Your task to perform on an android device: Empty the shopping cart on amazon.com. Search for "logitech g502" on amazon.com, select the first entry, and add it to the cart. Image 0: 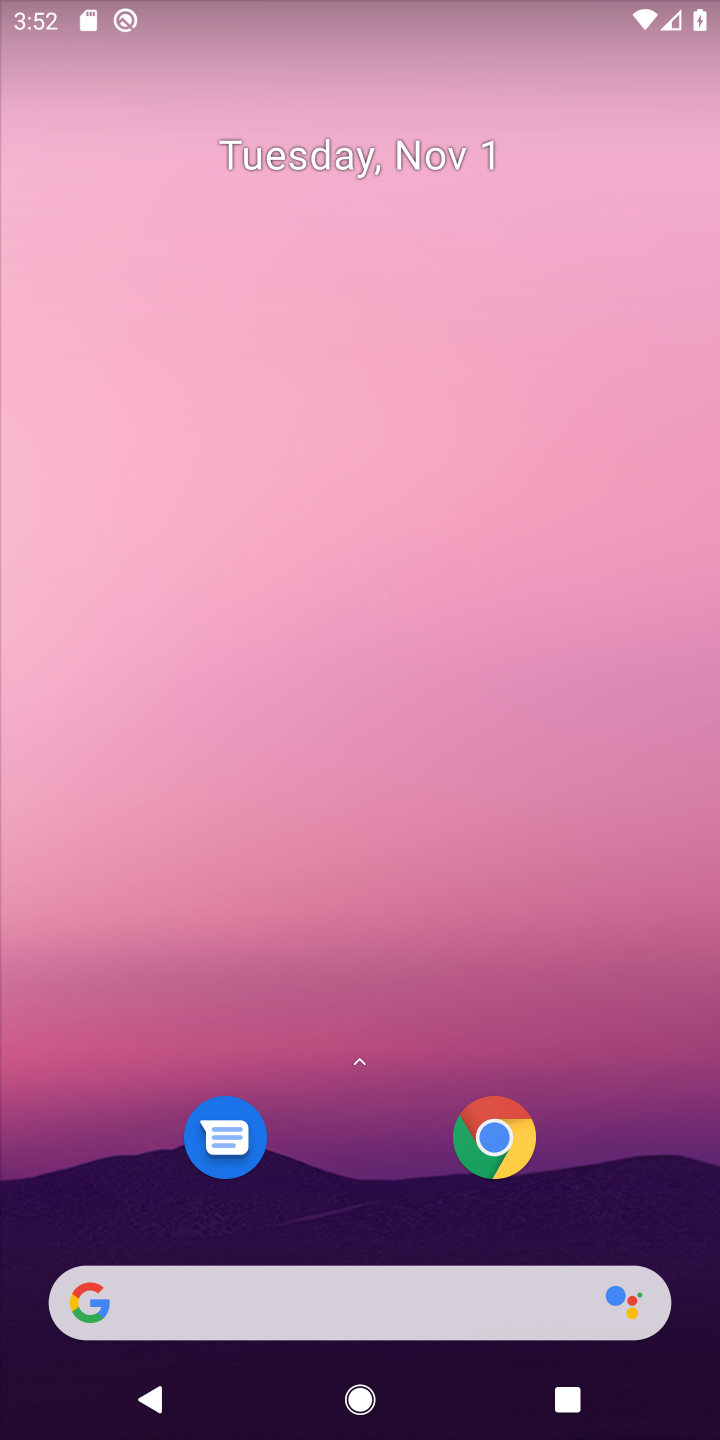
Step 0: click (335, 1285)
Your task to perform on an android device: Empty the shopping cart on amazon.com. Search for "logitech g502" on amazon.com, select the first entry, and add it to the cart. Image 1: 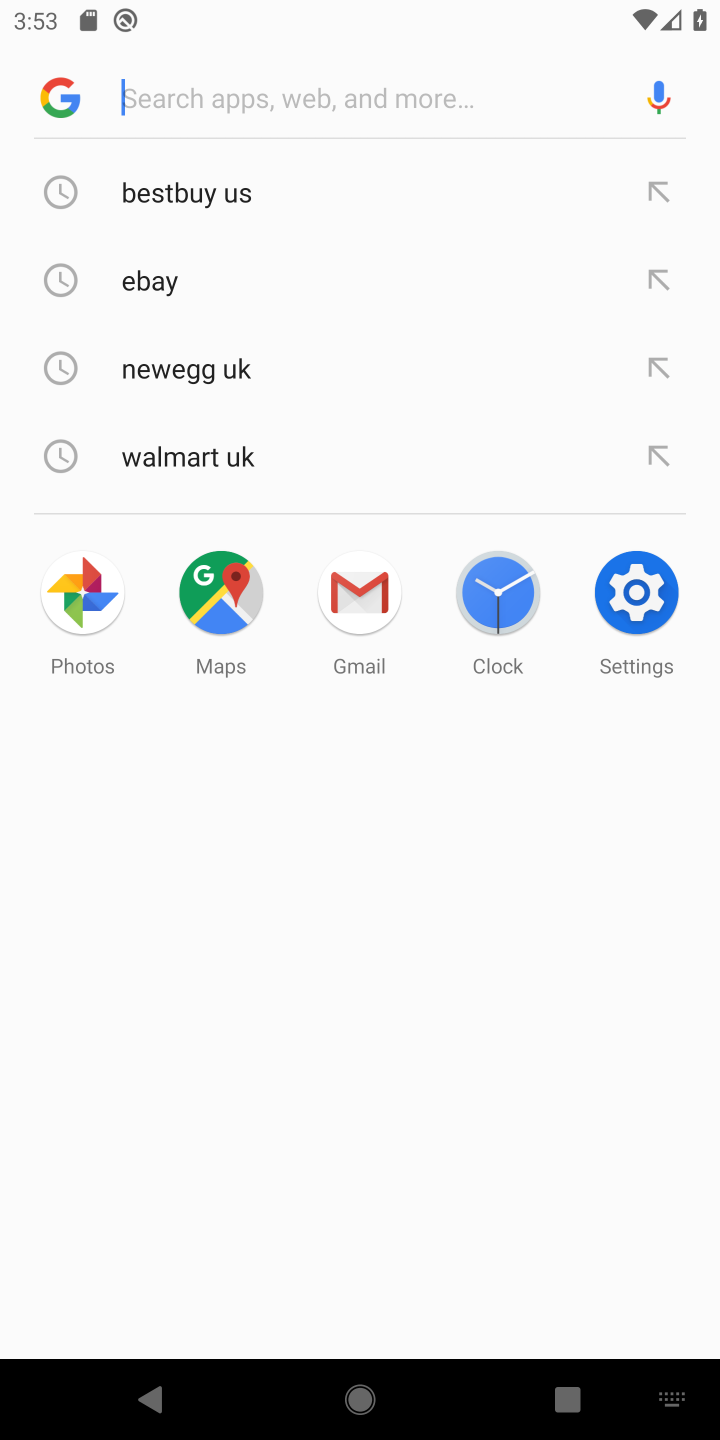
Step 1: type "ama"
Your task to perform on an android device: Empty the shopping cart on amazon.com. Search for "logitech g502" on amazon.com, select the first entry, and add it to the cart. Image 2: 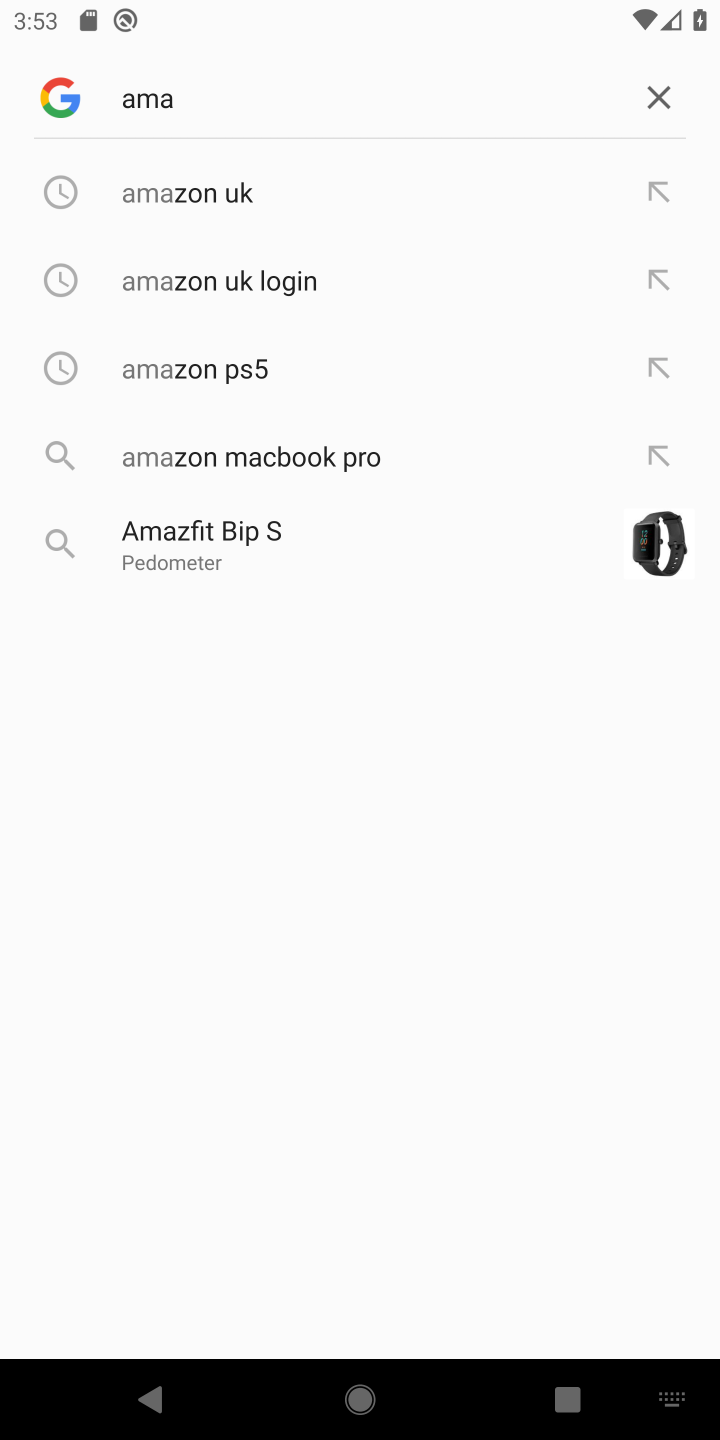
Step 2: click (108, 175)
Your task to perform on an android device: Empty the shopping cart on amazon.com. Search for "logitech g502" on amazon.com, select the first entry, and add it to the cart. Image 3: 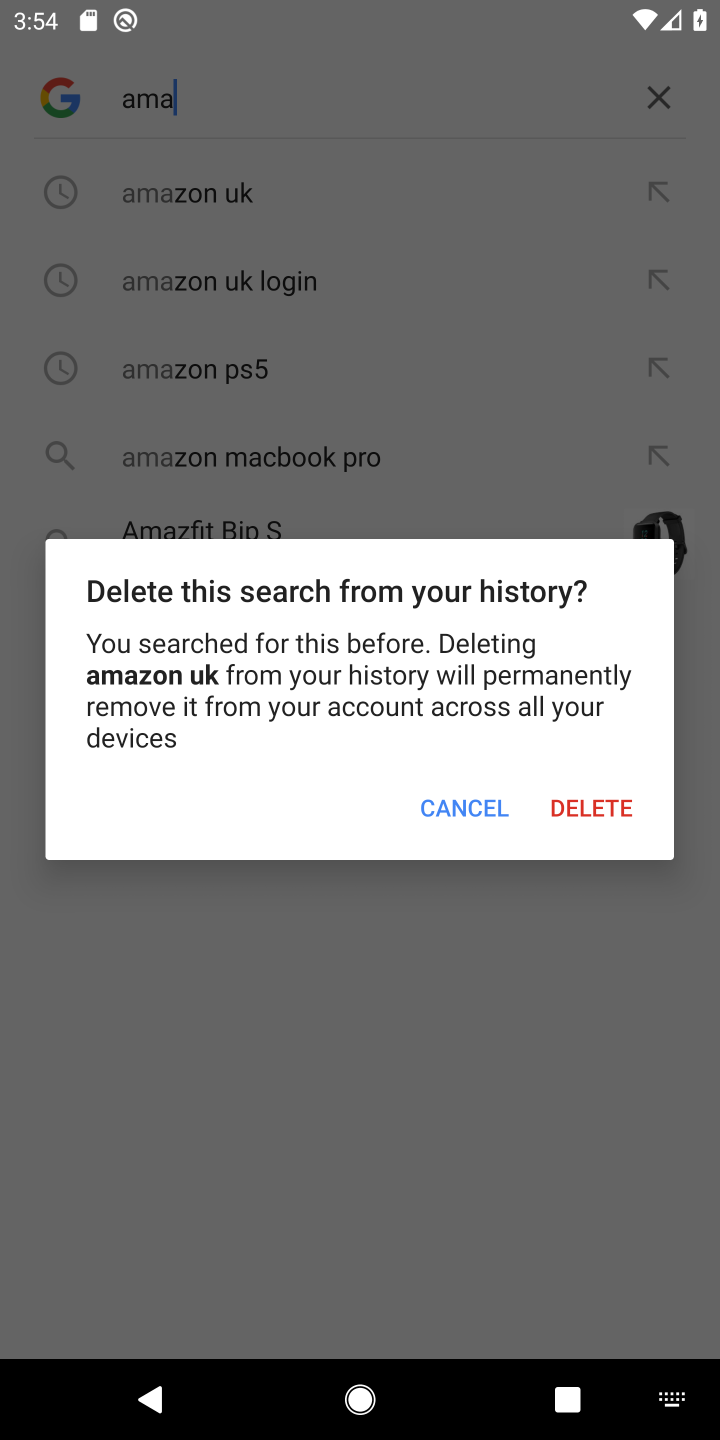
Step 3: click (460, 820)
Your task to perform on an android device: Empty the shopping cart on amazon.com. Search for "logitech g502" on amazon.com, select the first entry, and add it to the cart. Image 4: 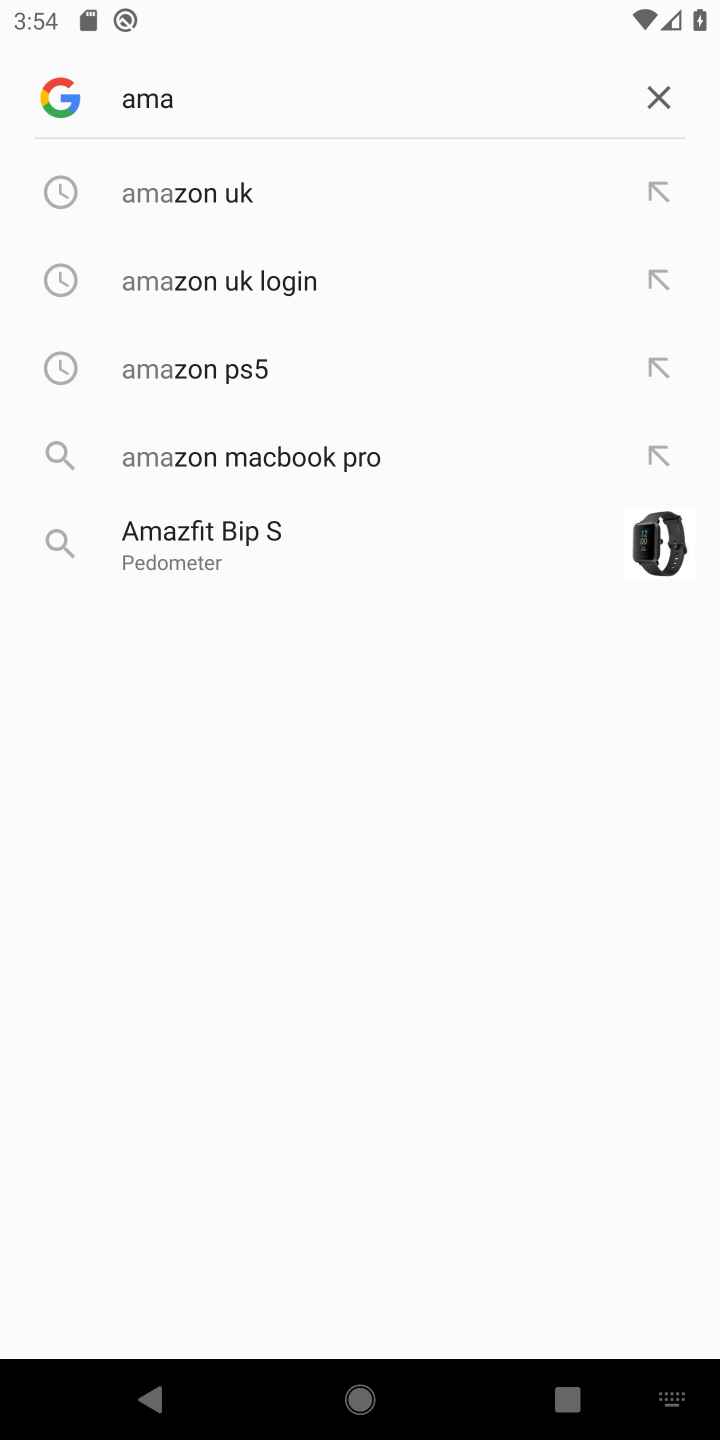
Step 4: click (317, 182)
Your task to perform on an android device: Empty the shopping cart on amazon.com. Search for "logitech g502" on amazon.com, select the first entry, and add it to the cart. Image 5: 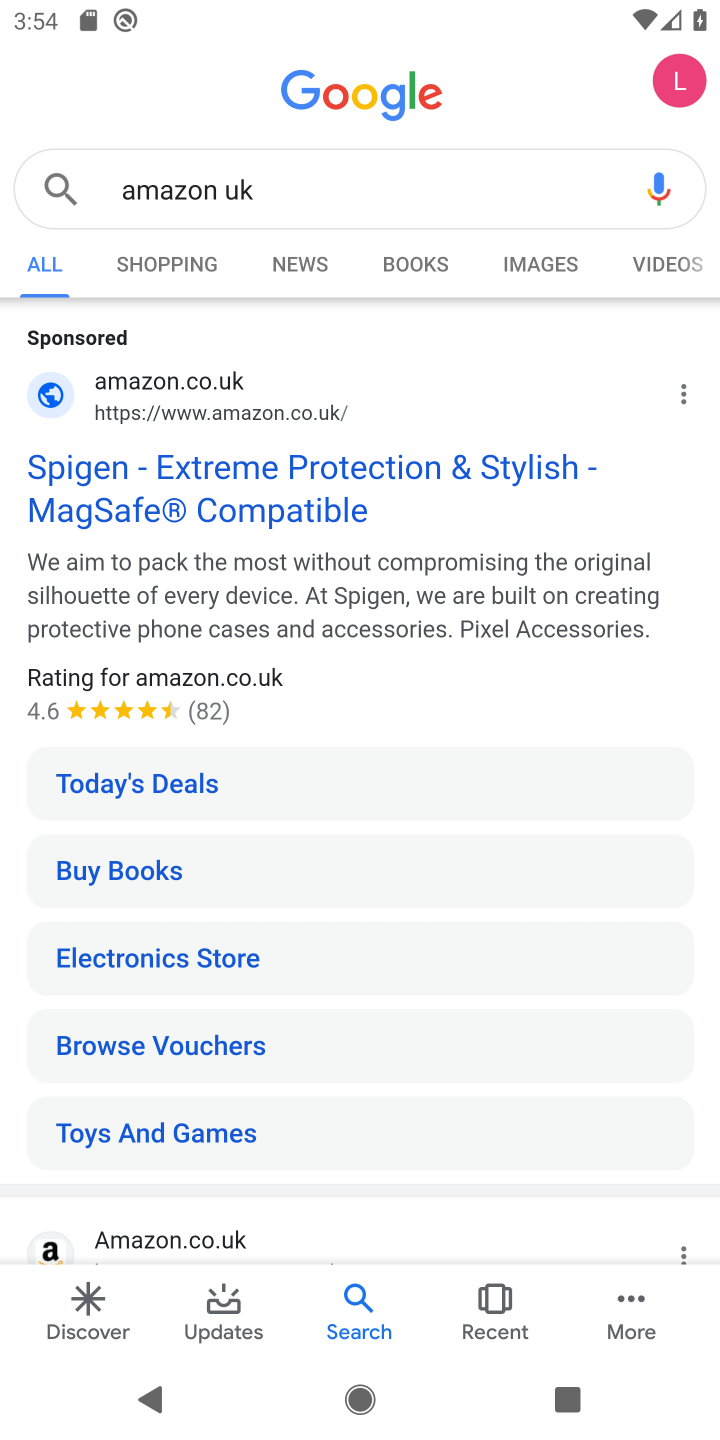
Step 5: click (339, 580)
Your task to perform on an android device: Empty the shopping cart on amazon.com. Search for "logitech g502" on amazon.com, select the first entry, and add it to the cart. Image 6: 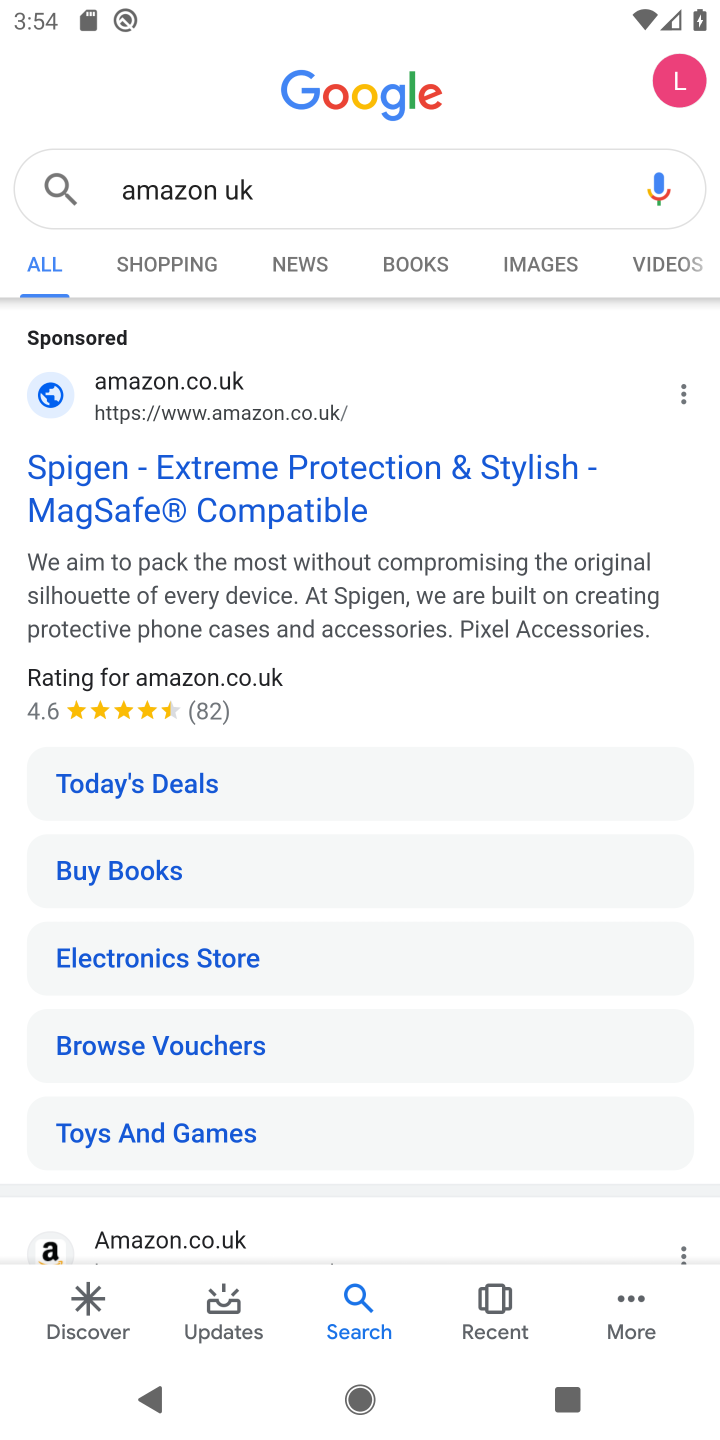
Step 6: click (251, 467)
Your task to perform on an android device: Empty the shopping cart on amazon.com. Search for "logitech g502" on amazon.com, select the first entry, and add it to the cart. Image 7: 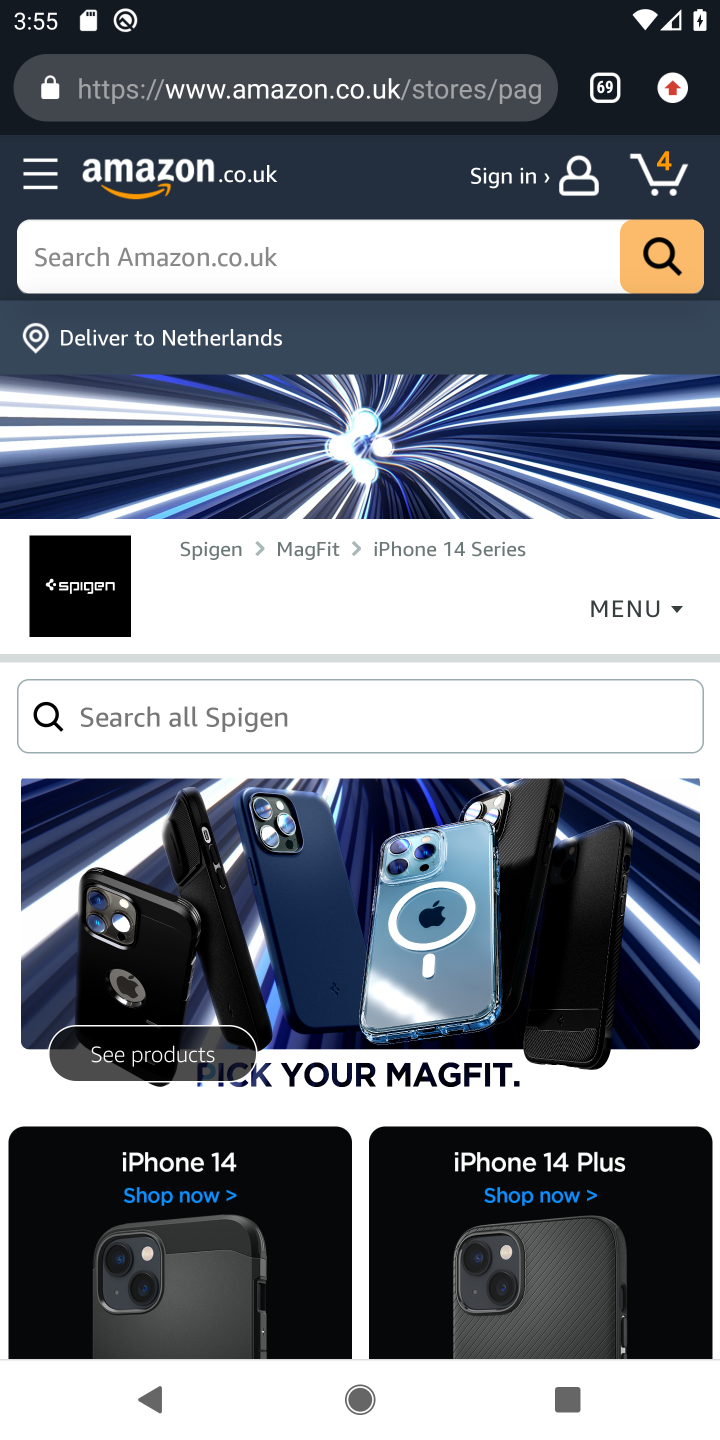
Step 7: task complete